Your task to perform on an android device: add a contact Image 0: 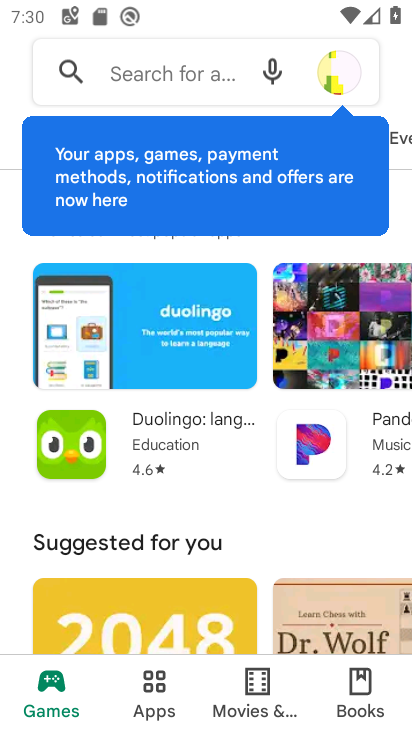
Step 0: press home button
Your task to perform on an android device: add a contact Image 1: 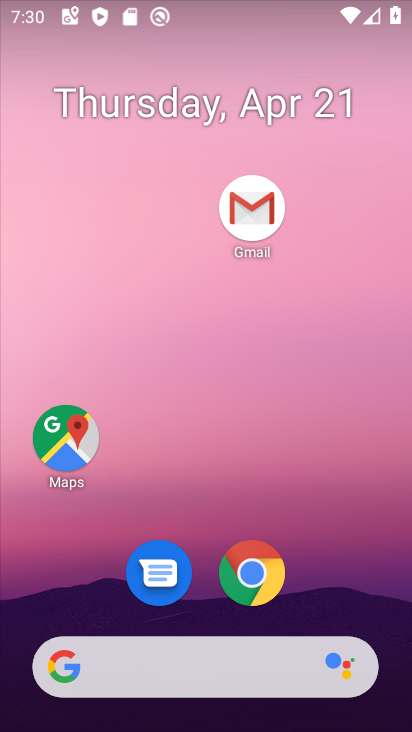
Step 1: drag from (370, 571) to (327, 67)
Your task to perform on an android device: add a contact Image 2: 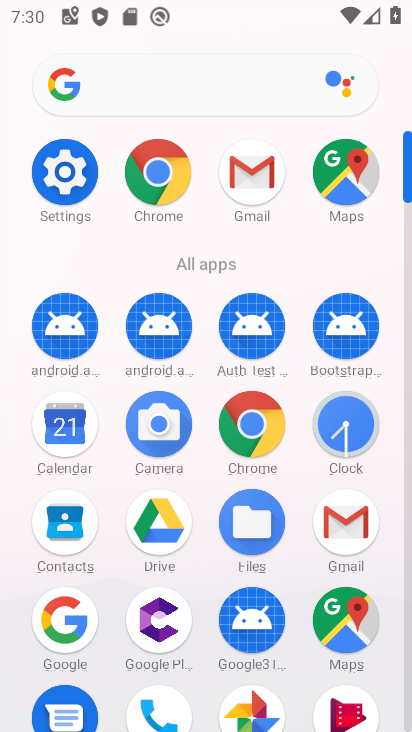
Step 2: drag from (410, 587) to (378, 254)
Your task to perform on an android device: add a contact Image 3: 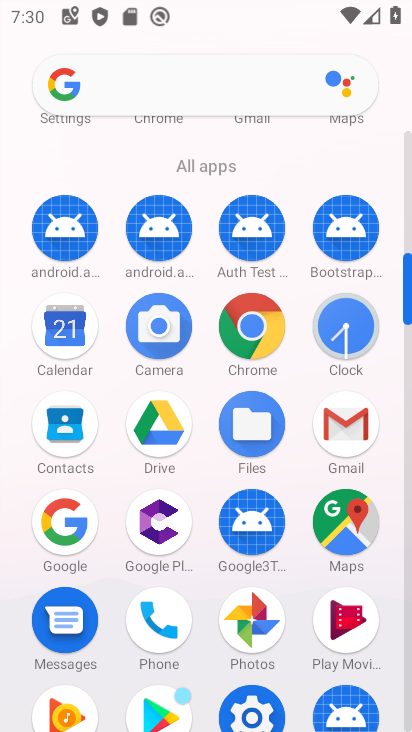
Step 3: click (156, 614)
Your task to perform on an android device: add a contact Image 4: 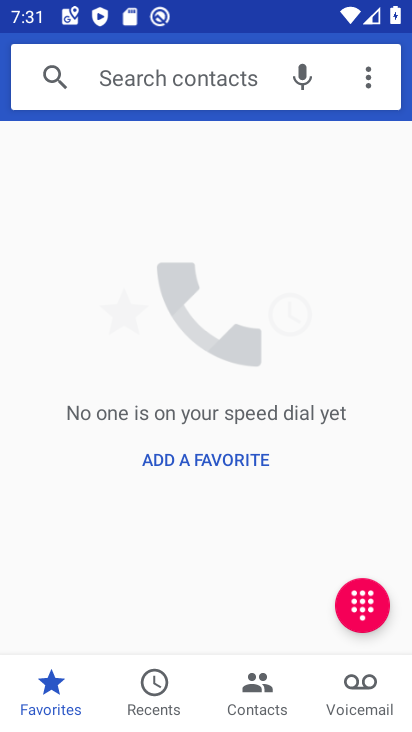
Step 4: click (278, 698)
Your task to perform on an android device: add a contact Image 5: 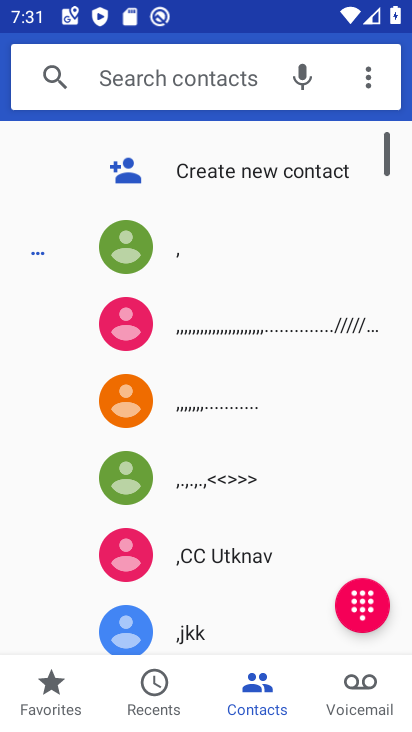
Step 5: click (109, 154)
Your task to perform on an android device: add a contact Image 6: 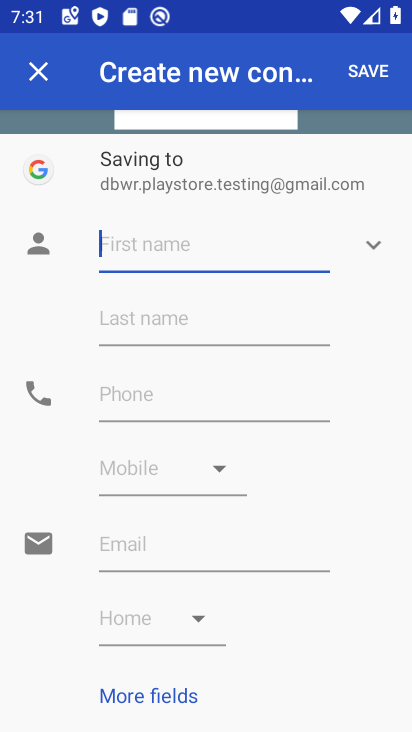
Step 6: type "dipika"
Your task to perform on an android device: add a contact Image 7: 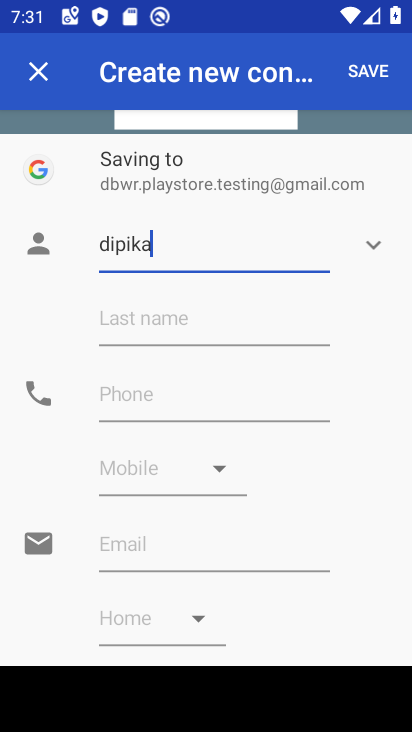
Step 7: click (168, 316)
Your task to perform on an android device: add a contact Image 8: 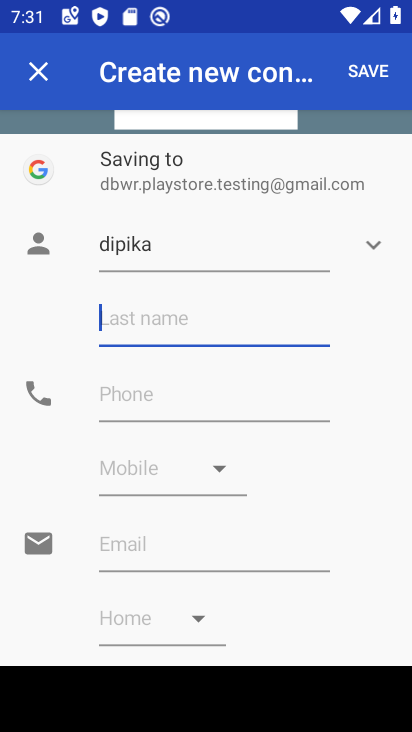
Step 8: click (149, 397)
Your task to perform on an android device: add a contact Image 9: 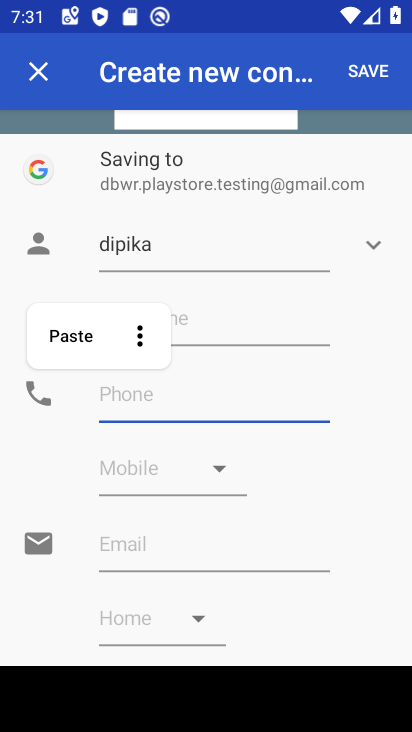
Step 9: type "76322222228"
Your task to perform on an android device: add a contact Image 10: 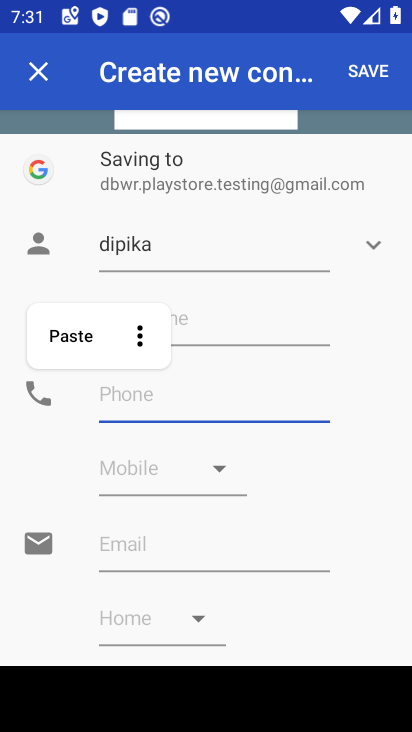
Step 10: click (346, 568)
Your task to perform on an android device: add a contact Image 11: 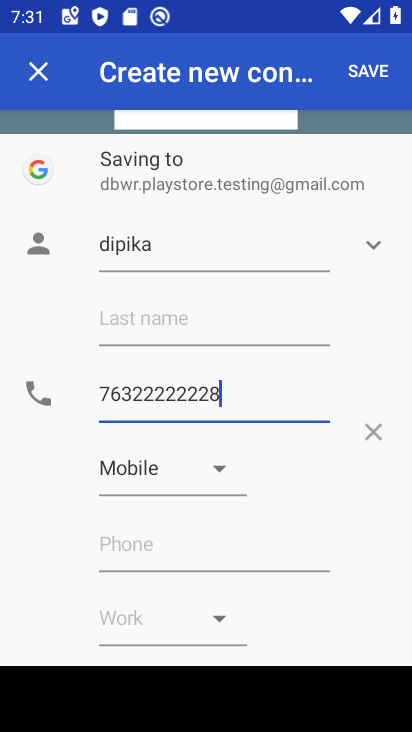
Step 11: click (387, 77)
Your task to perform on an android device: add a contact Image 12: 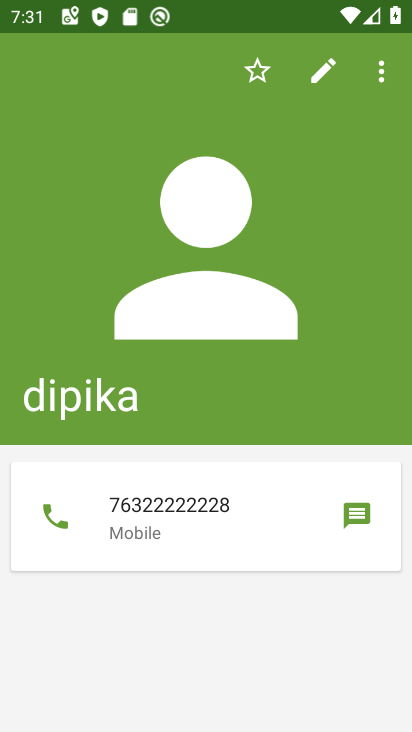
Step 12: task complete